Your task to perform on an android device: toggle javascript in the chrome app Image 0: 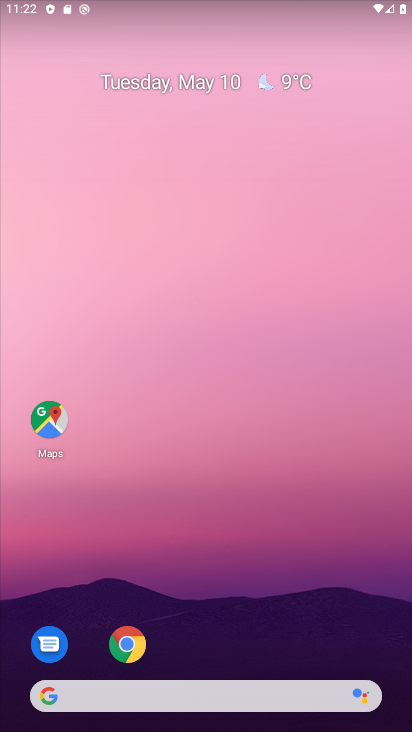
Step 0: click (132, 646)
Your task to perform on an android device: toggle javascript in the chrome app Image 1: 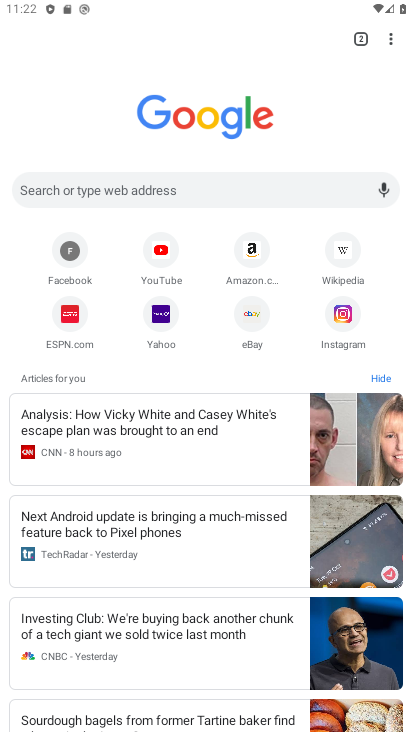
Step 1: click (391, 31)
Your task to perform on an android device: toggle javascript in the chrome app Image 2: 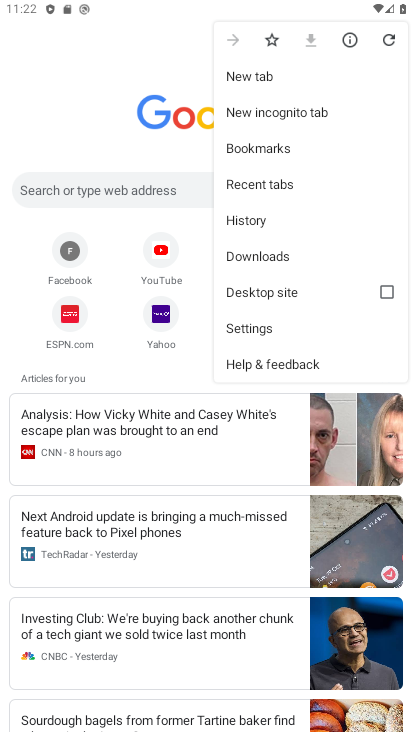
Step 2: click (258, 328)
Your task to perform on an android device: toggle javascript in the chrome app Image 3: 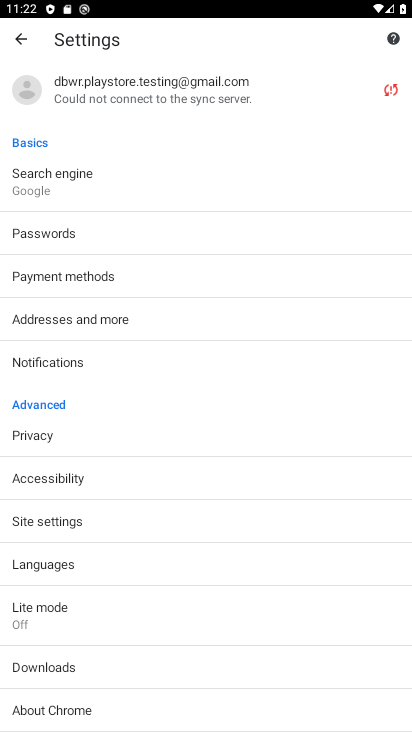
Step 3: click (73, 520)
Your task to perform on an android device: toggle javascript in the chrome app Image 4: 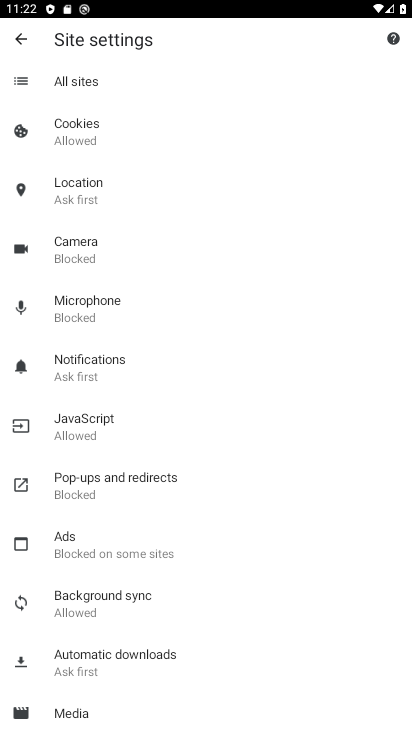
Step 4: click (126, 426)
Your task to perform on an android device: toggle javascript in the chrome app Image 5: 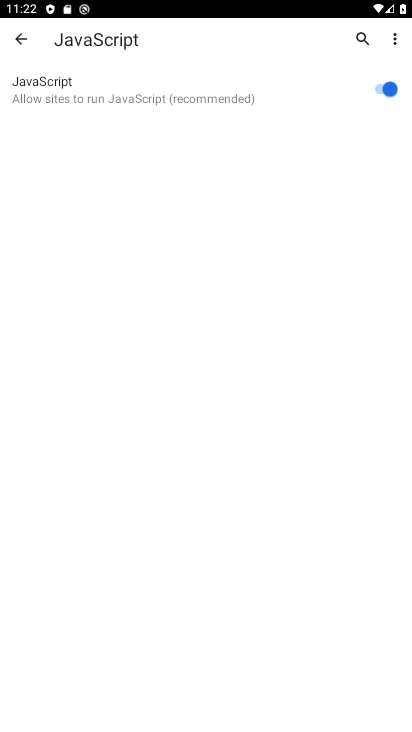
Step 5: click (375, 89)
Your task to perform on an android device: toggle javascript in the chrome app Image 6: 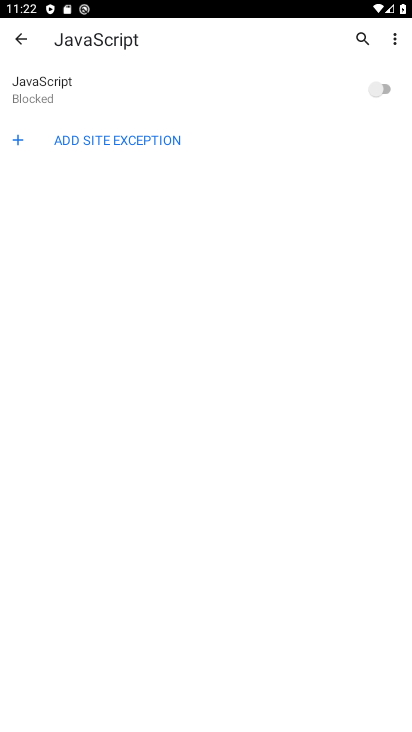
Step 6: task complete